Your task to perform on an android device: turn on priority inbox in the gmail app Image 0: 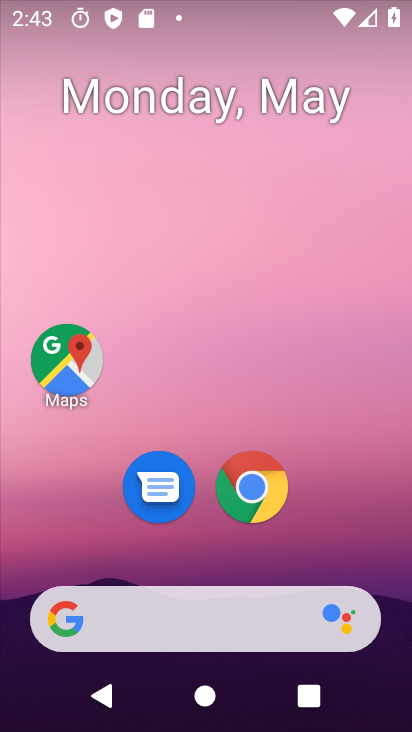
Step 0: drag from (227, 536) to (252, 31)
Your task to perform on an android device: turn on priority inbox in the gmail app Image 1: 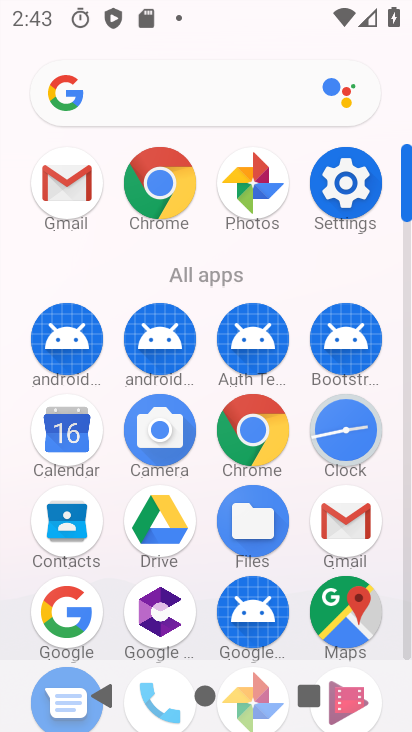
Step 1: click (357, 539)
Your task to perform on an android device: turn on priority inbox in the gmail app Image 2: 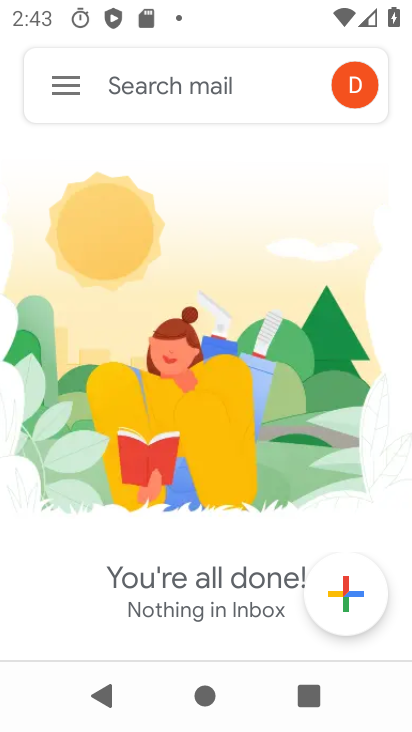
Step 2: click (46, 85)
Your task to perform on an android device: turn on priority inbox in the gmail app Image 3: 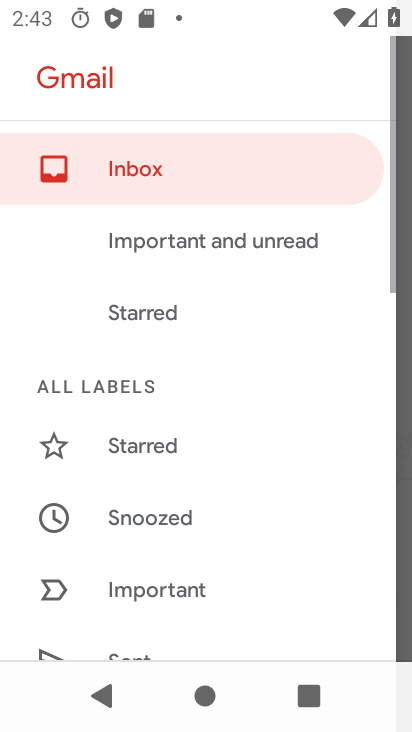
Step 3: drag from (188, 579) to (230, 129)
Your task to perform on an android device: turn on priority inbox in the gmail app Image 4: 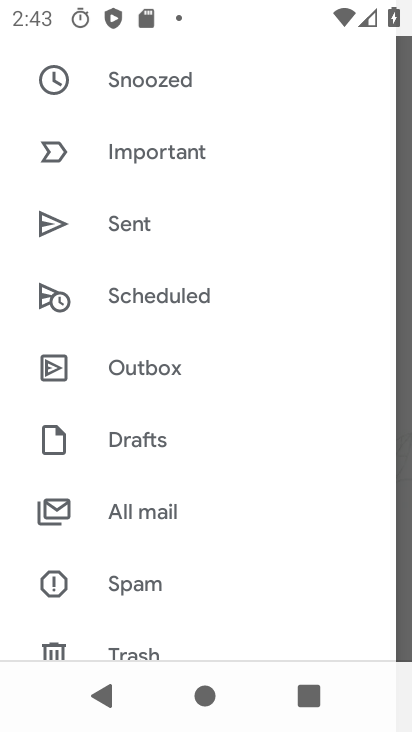
Step 4: drag from (184, 560) to (209, 227)
Your task to perform on an android device: turn on priority inbox in the gmail app Image 5: 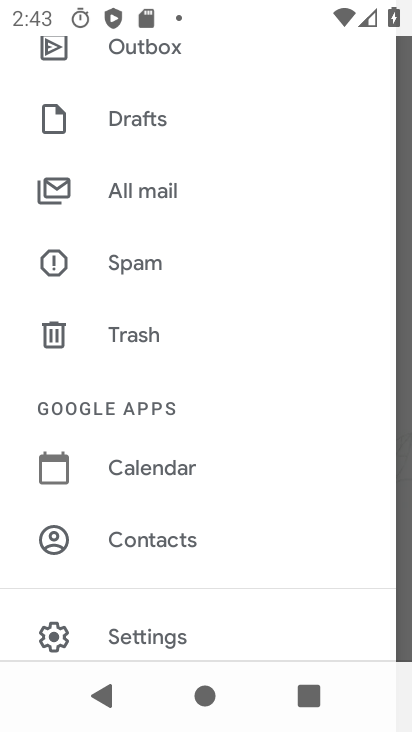
Step 5: drag from (136, 596) to (216, 188)
Your task to perform on an android device: turn on priority inbox in the gmail app Image 6: 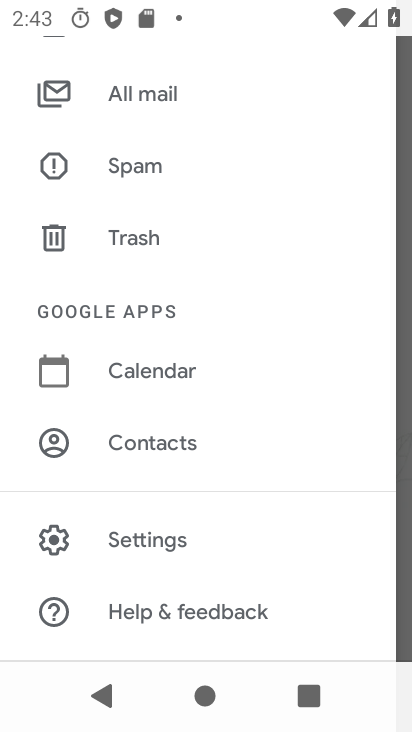
Step 6: click (138, 550)
Your task to perform on an android device: turn on priority inbox in the gmail app Image 7: 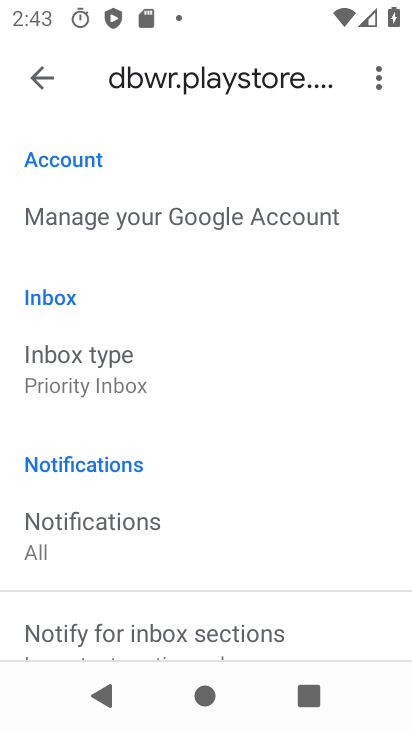
Step 7: click (125, 376)
Your task to perform on an android device: turn on priority inbox in the gmail app Image 8: 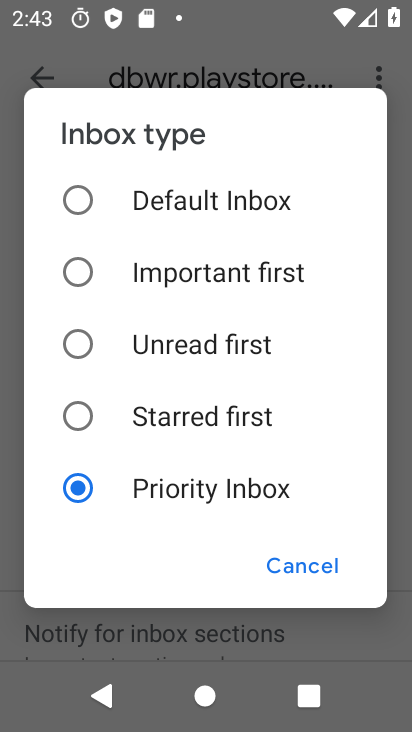
Step 8: task complete